Your task to perform on an android device: turn off notifications in google photos Image 0: 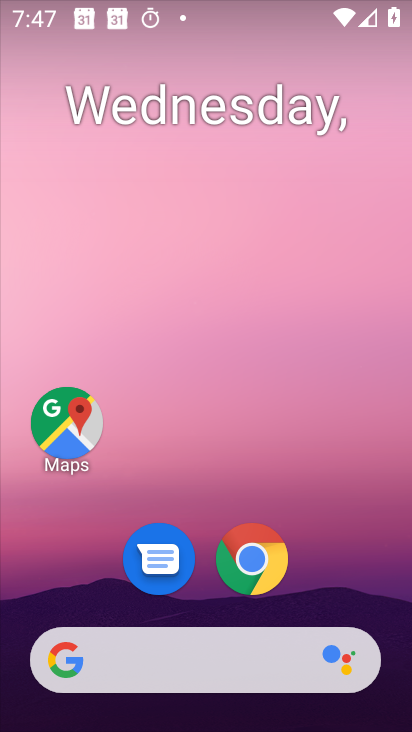
Step 0: drag from (371, 577) to (331, 4)
Your task to perform on an android device: turn off notifications in google photos Image 1: 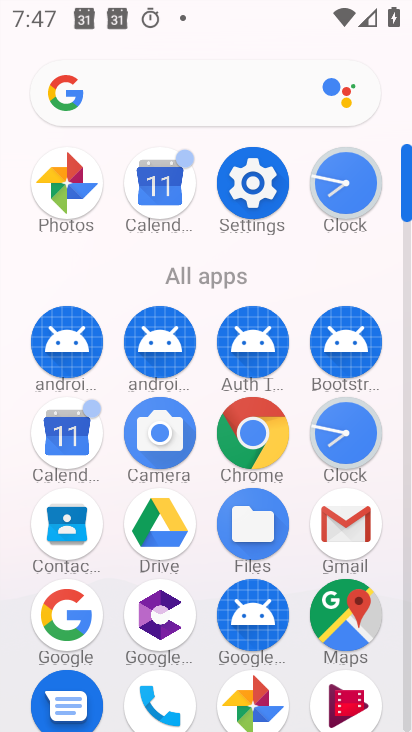
Step 1: click (62, 182)
Your task to perform on an android device: turn off notifications in google photos Image 2: 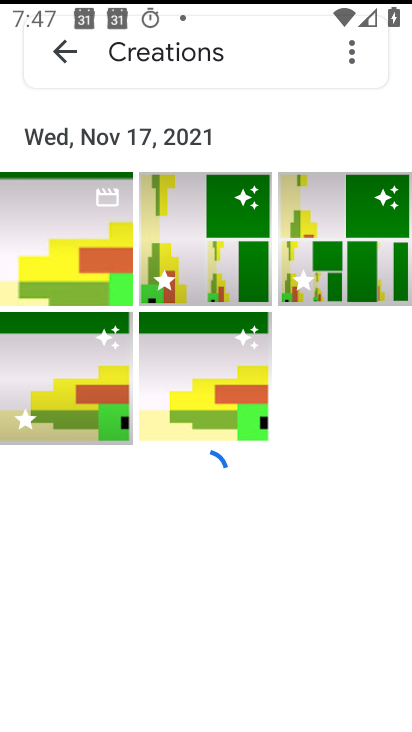
Step 2: click (61, 58)
Your task to perform on an android device: turn off notifications in google photos Image 3: 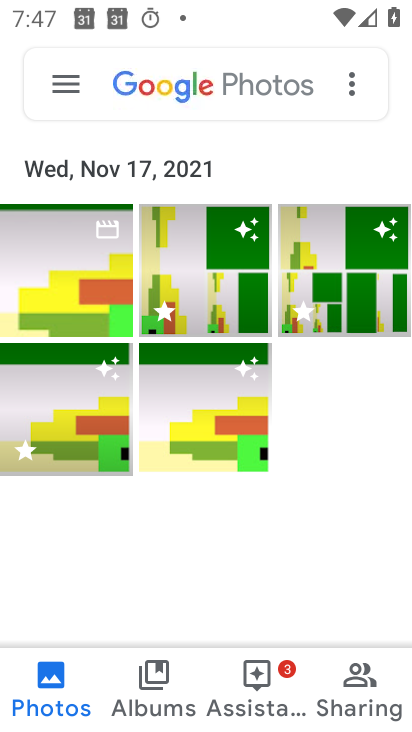
Step 3: click (59, 89)
Your task to perform on an android device: turn off notifications in google photos Image 4: 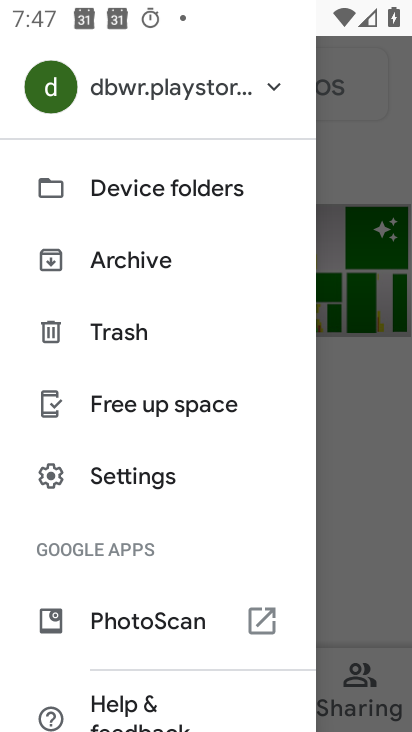
Step 4: click (113, 486)
Your task to perform on an android device: turn off notifications in google photos Image 5: 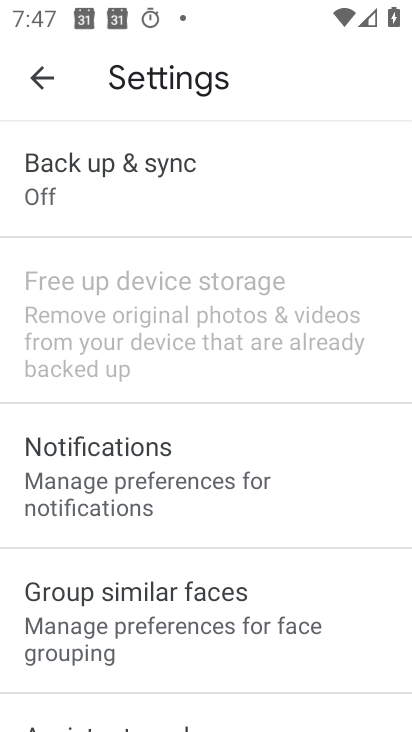
Step 5: click (114, 479)
Your task to perform on an android device: turn off notifications in google photos Image 6: 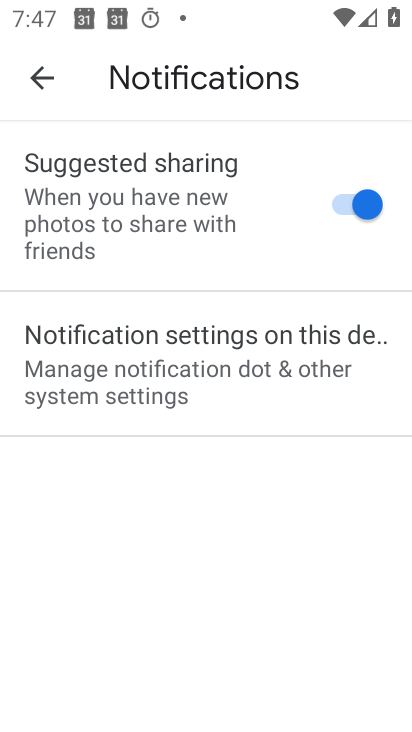
Step 6: click (171, 353)
Your task to perform on an android device: turn off notifications in google photos Image 7: 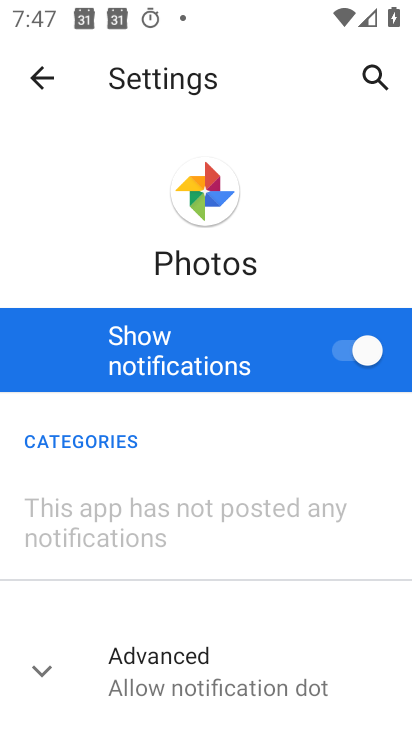
Step 7: click (367, 354)
Your task to perform on an android device: turn off notifications in google photos Image 8: 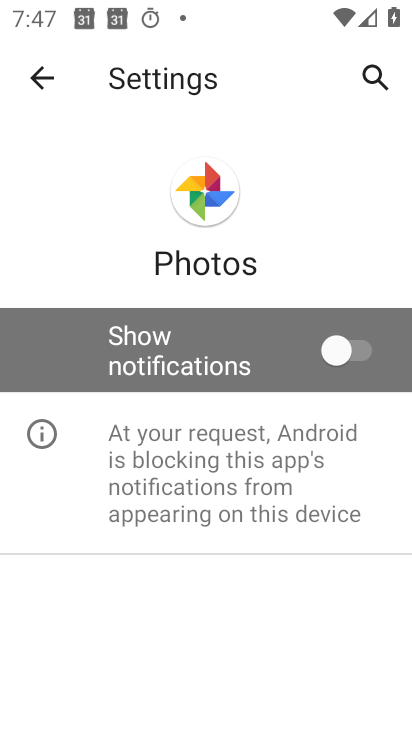
Step 8: task complete